Your task to perform on an android device: visit the assistant section in the google photos Image 0: 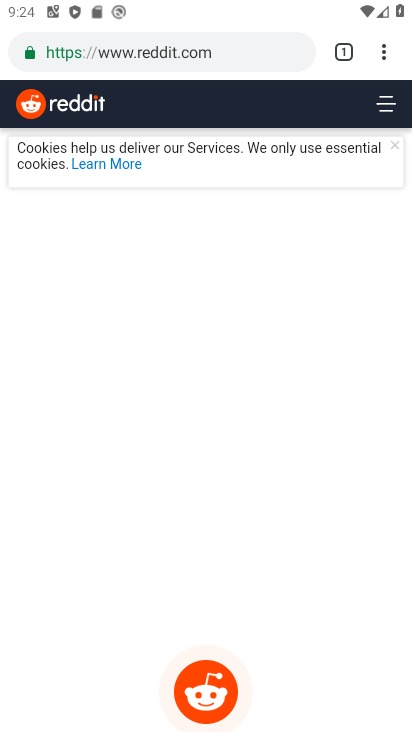
Step 0: press home button
Your task to perform on an android device: visit the assistant section in the google photos Image 1: 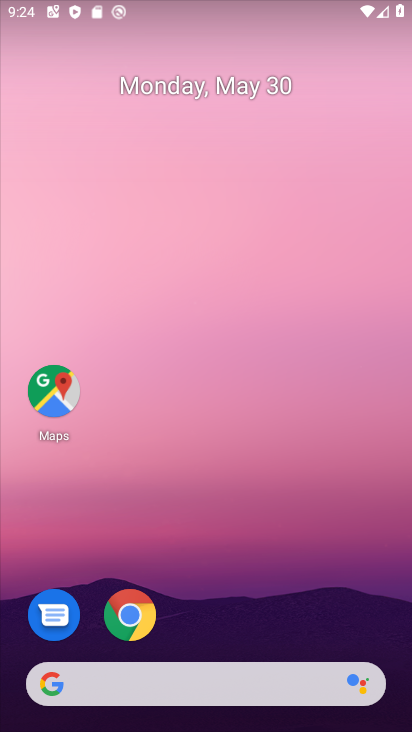
Step 1: drag from (313, 568) to (224, 34)
Your task to perform on an android device: visit the assistant section in the google photos Image 2: 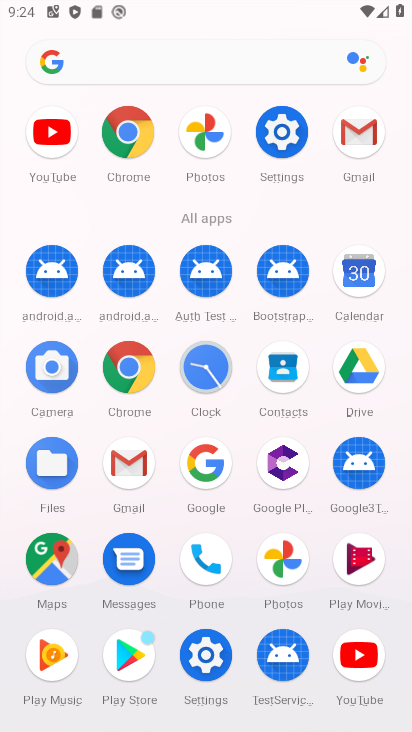
Step 2: click (291, 569)
Your task to perform on an android device: visit the assistant section in the google photos Image 3: 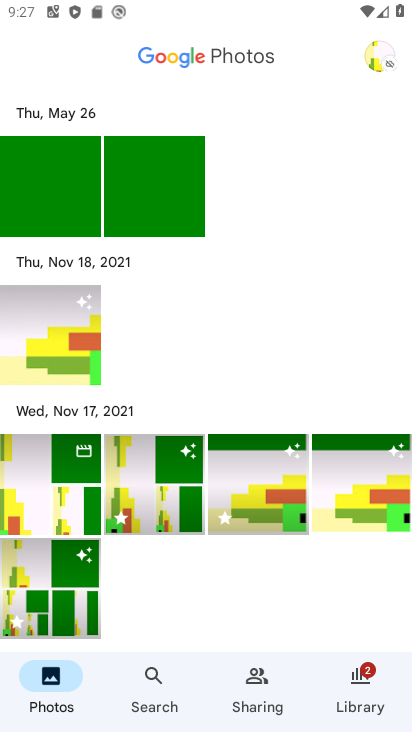
Step 3: task complete